Your task to perform on an android device: Go to Android settings Image 0: 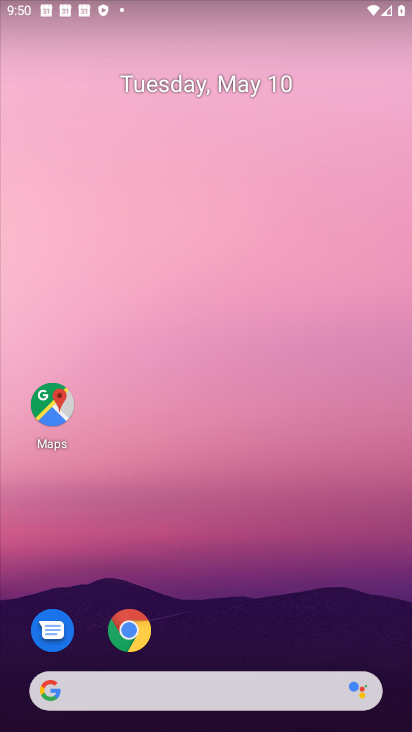
Step 0: drag from (87, 728) to (73, 6)
Your task to perform on an android device: Go to Android settings Image 1: 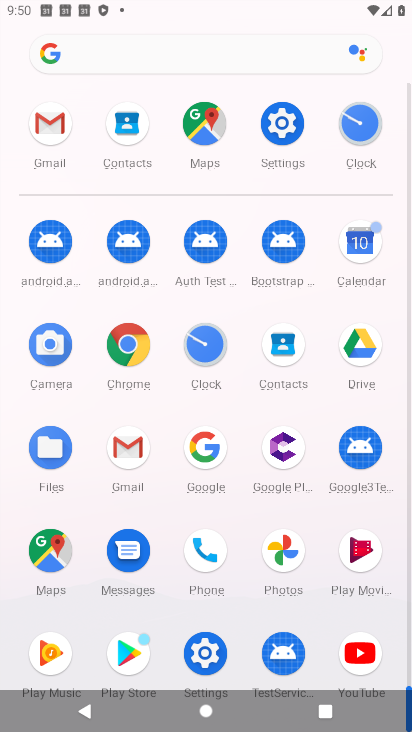
Step 1: click (300, 125)
Your task to perform on an android device: Go to Android settings Image 2: 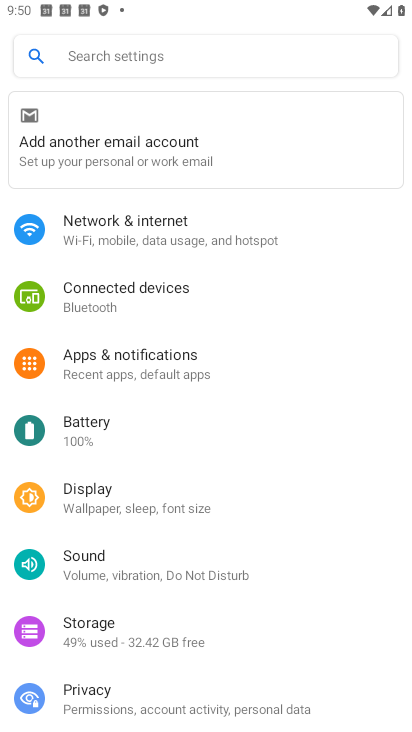
Step 2: task complete